Your task to perform on an android device: make emails show in primary in the gmail app Image 0: 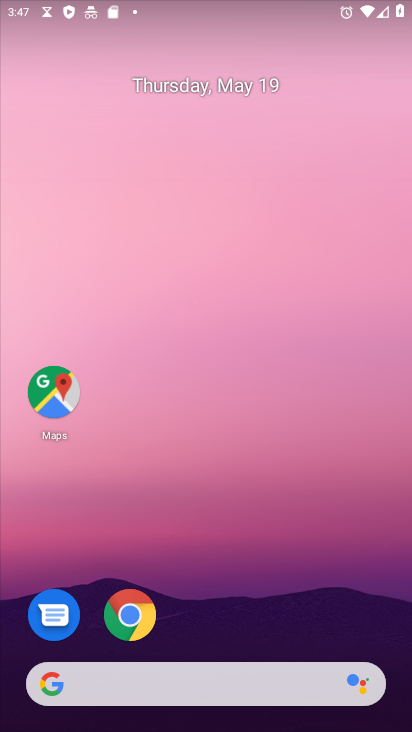
Step 0: drag from (210, 196) to (155, 2)
Your task to perform on an android device: make emails show in primary in the gmail app Image 1: 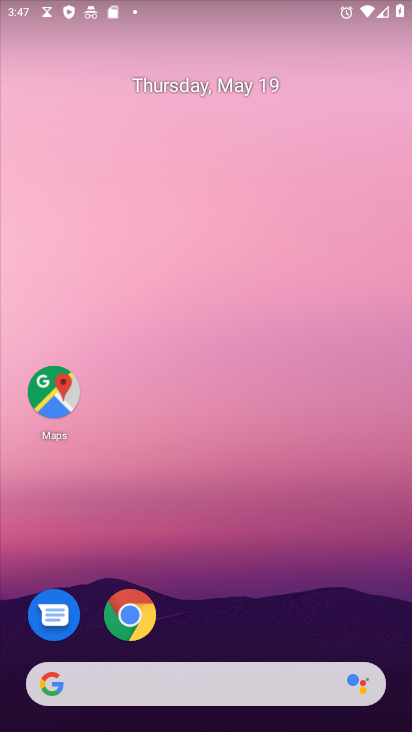
Step 1: drag from (281, 511) to (222, 125)
Your task to perform on an android device: make emails show in primary in the gmail app Image 2: 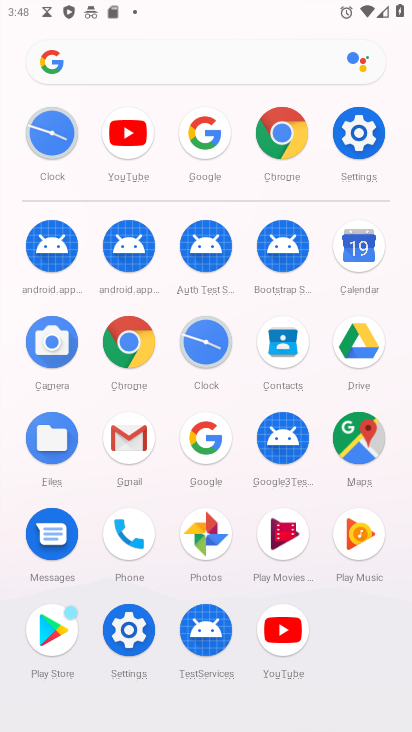
Step 2: click (189, 40)
Your task to perform on an android device: make emails show in primary in the gmail app Image 3: 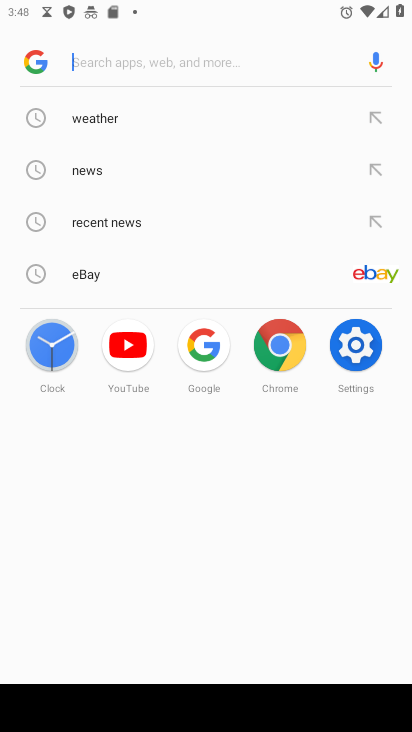
Step 3: press back button
Your task to perform on an android device: make emails show in primary in the gmail app Image 4: 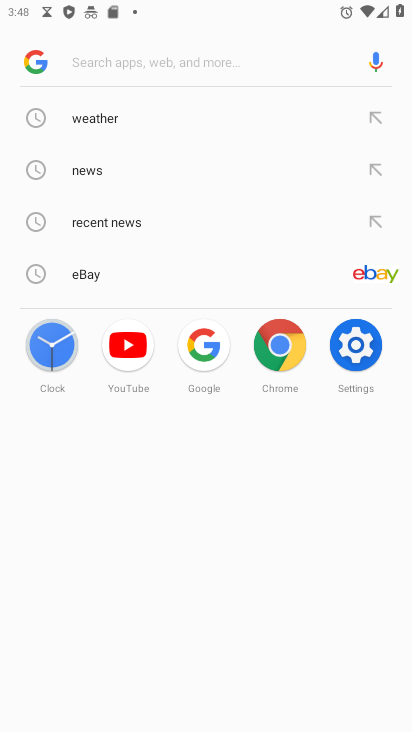
Step 4: press back button
Your task to perform on an android device: make emails show in primary in the gmail app Image 5: 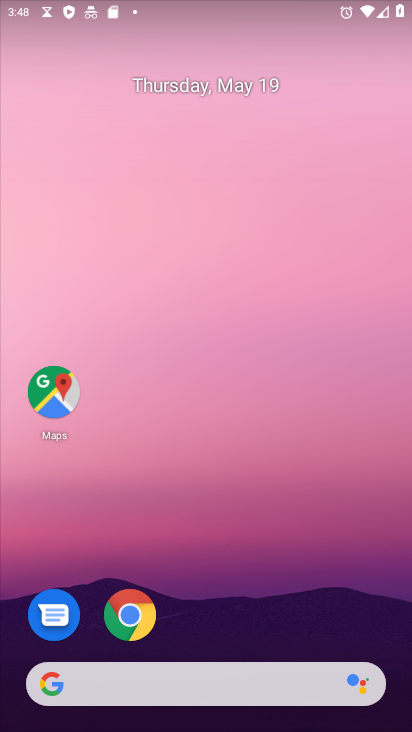
Step 5: drag from (261, 571) to (234, 1)
Your task to perform on an android device: make emails show in primary in the gmail app Image 6: 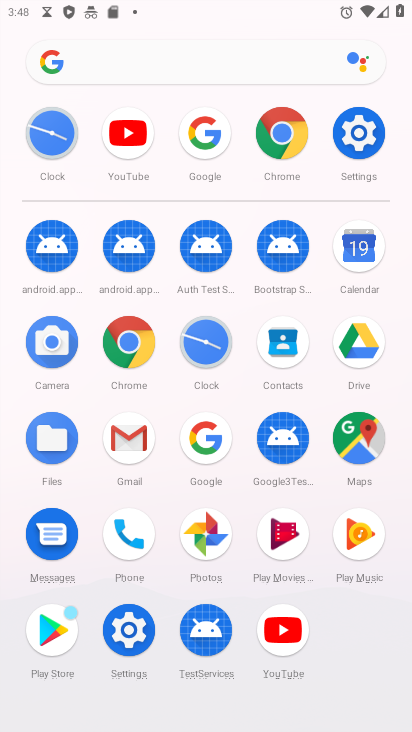
Step 6: click (125, 442)
Your task to perform on an android device: make emails show in primary in the gmail app Image 7: 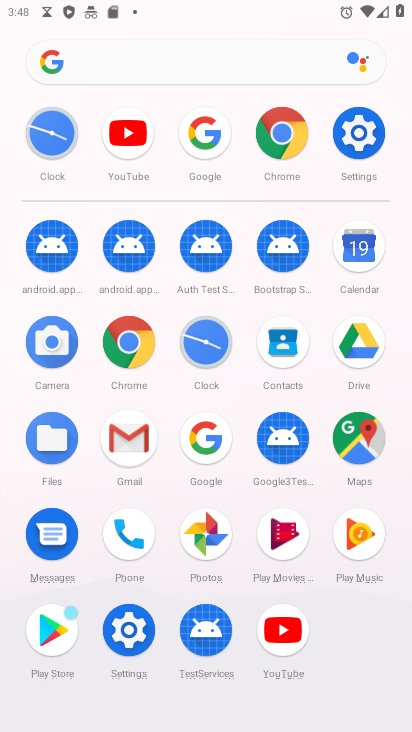
Step 7: click (122, 441)
Your task to perform on an android device: make emails show in primary in the gmail app Image 8: 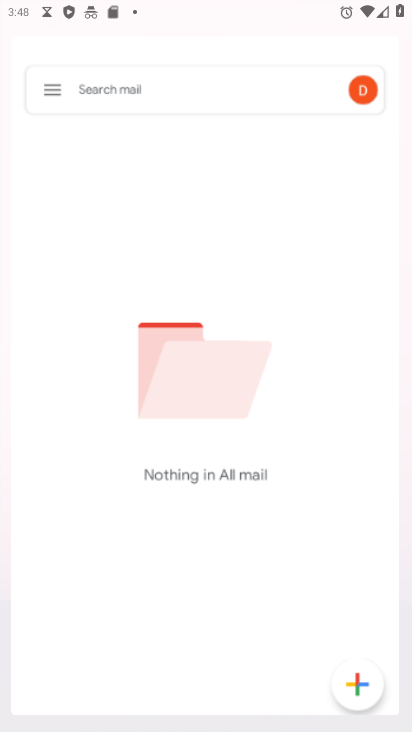
Step 8: click (124, 440)
Your task to perform on an android device: make emails show in primary in the gmail app Image 9: 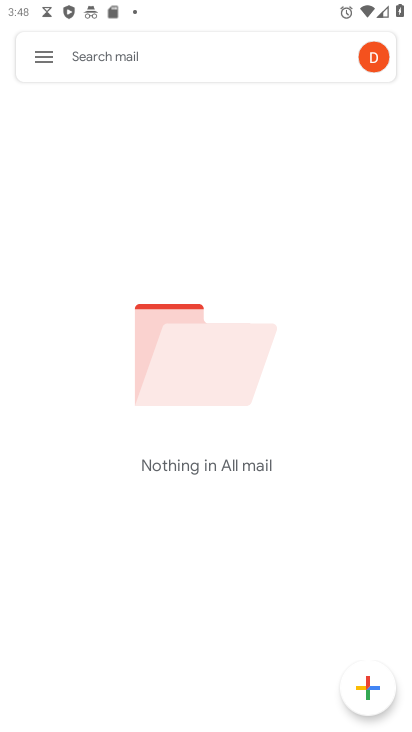
Step 9: click (45, 64)
Your task to perform on an android device: make emails show in primary in the gmail app Image 10: 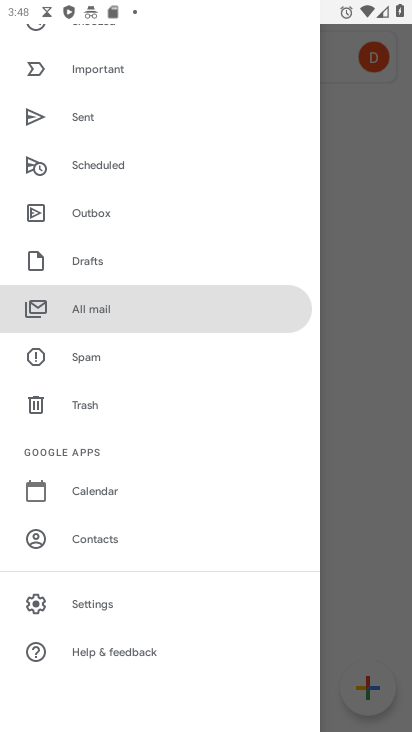
Step 10: click (96, 597)
Your task to perform on an android device: make emails show in primary in the gmail app Image 11: 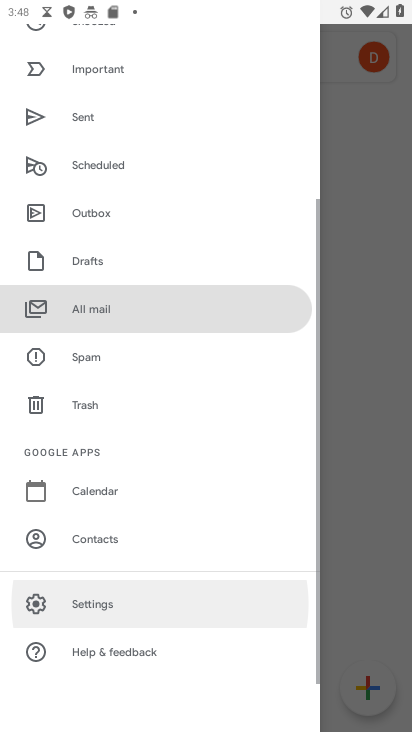
Step 11: click (96, 597)
Your task to perform on an android device: make emails show in primary in the gmail app Image 12: 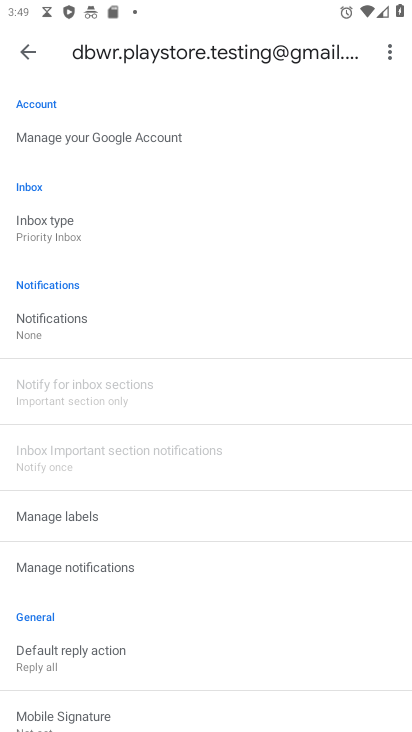
Step 12: click (58, 226)
Your task to perform on an android device: make emails show in primary in the gmail app Image 13: 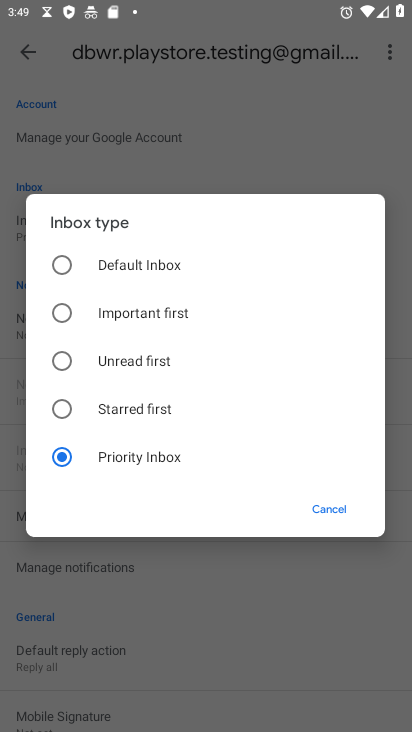
Step 13: click (62, 261)
Your task to perform on an android device: make emails show in primary in the gmail app Image 14: 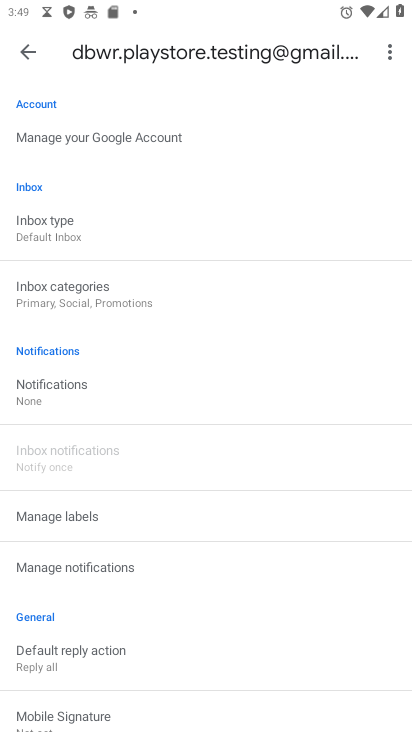
Step 14: click (48, 231)
Your task to perform on an android device: make emails show in primary in the gmail app Image 15: 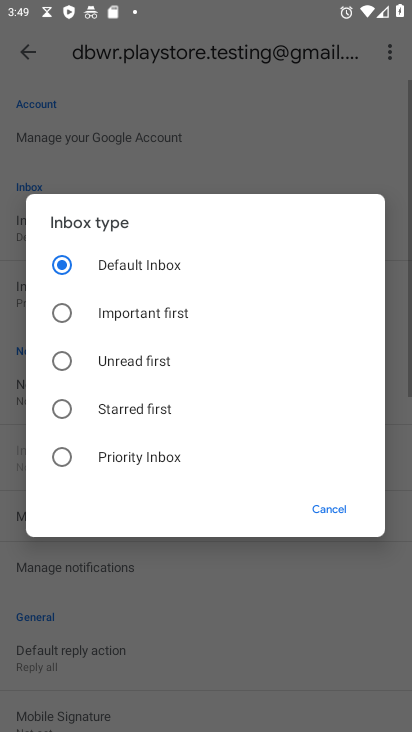
Step 15: click (331, 512)
Your task to perform on an android device: make emails show in primary in the gmail app Image 16: 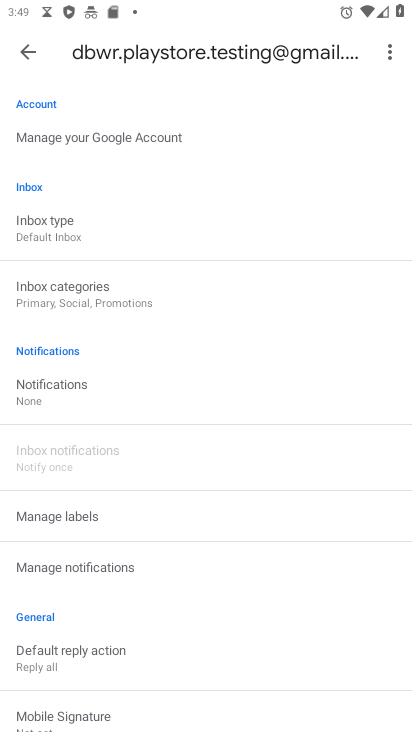
Step 16: click (66, 296)
Your task to perform on an android device: make emails show in primary in the gmail app Image 17: 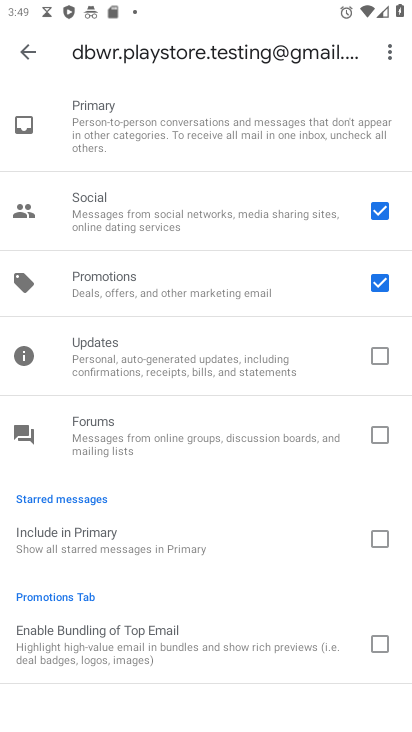
Step 17: click (87, 126)
Your task to perform on an android device: make emails show in primary in the gmail app Image 18: 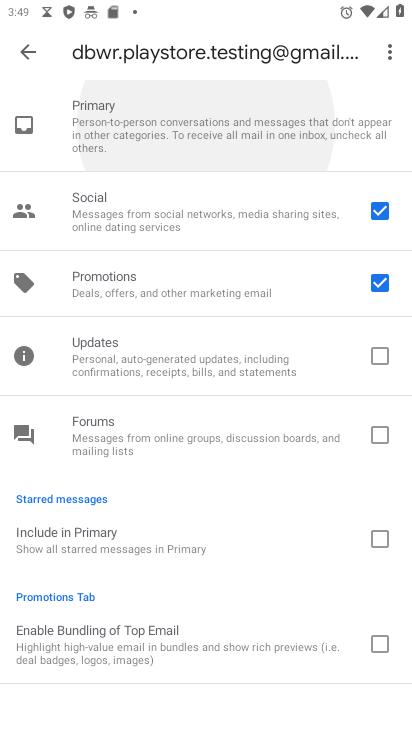
Step 18: click (87, 126)
Your task to perform on an android device: make emails show in primary in the gmail app Image 19: 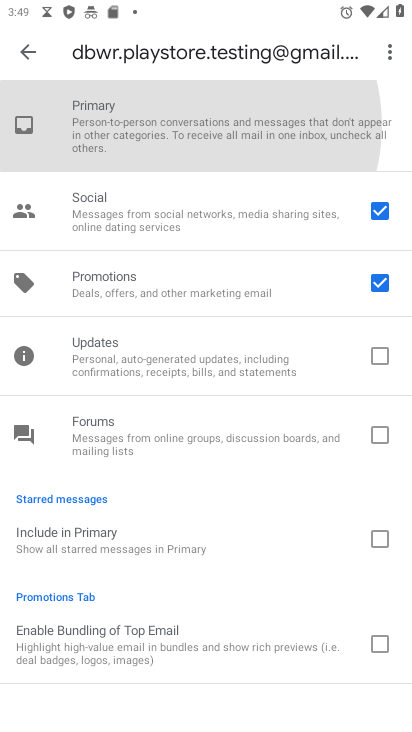
Step 19: click (86, 126)
Your task to perform on an android device: make emails show in primary in the gmail app Image 20: 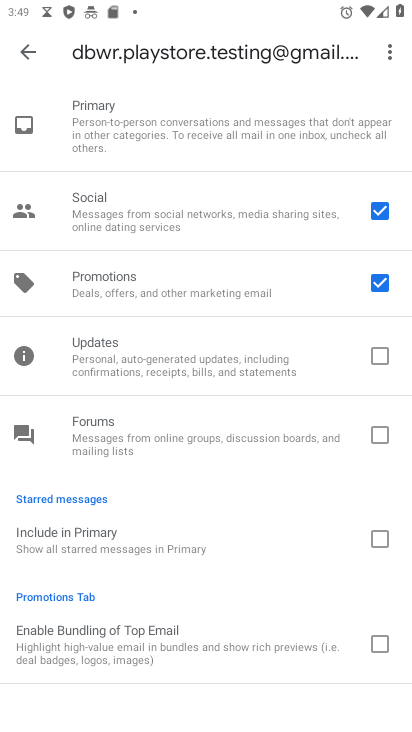
Step 20: click (30, 50)
Your task to perform on an android device: make emails show in primary in the gmail app Image 21: 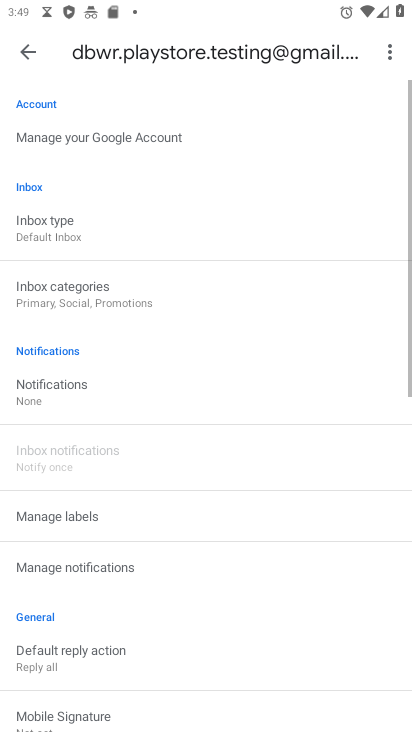
Step 21: task complete